Your task to perform on an android device: open a new tab in the chrome app Image 0: 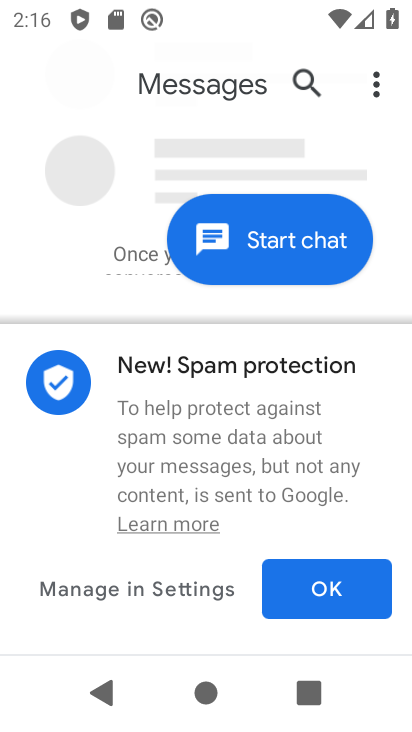
Step 0: press home button
Your task to perform on an android device: open a new tab in the chrome app Image 1: 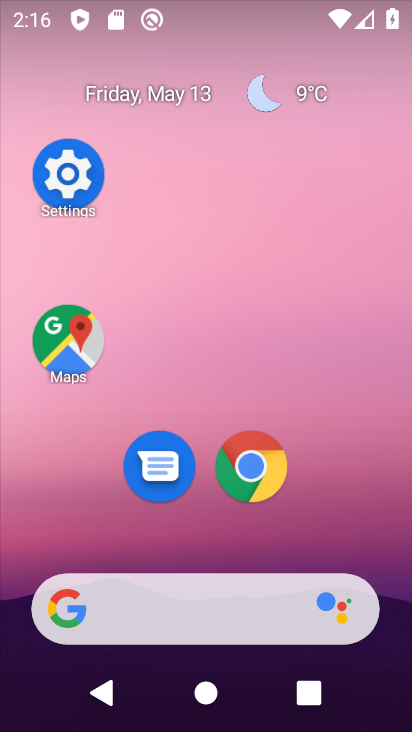
Step 1: click (273, 460)
Your task to perform on an android device: open a new tab in the chrome app Image 2: 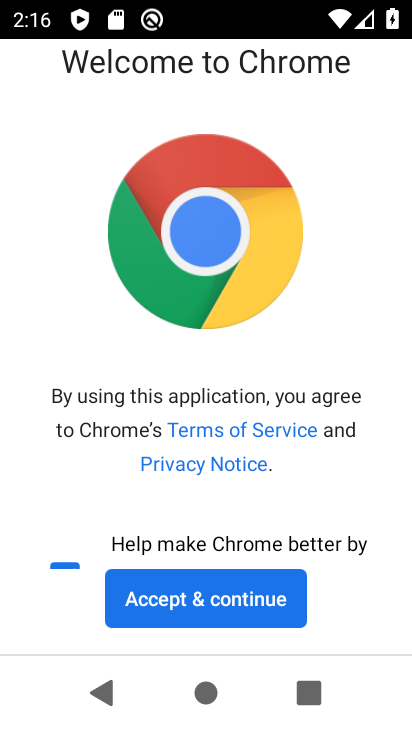
Step 2: click (238, 577)
Your task to perform on an android device: open a new tab in the chrome app Image 3: 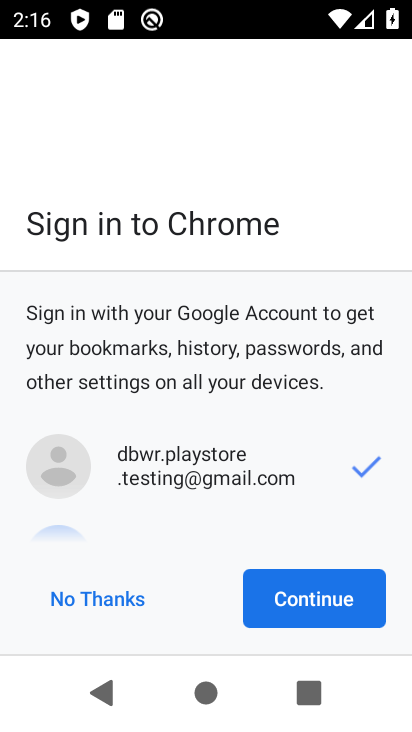
Step 3: click (285, 597)
Your task to perform on an android device: open a new tab in the chrome app Image 4: 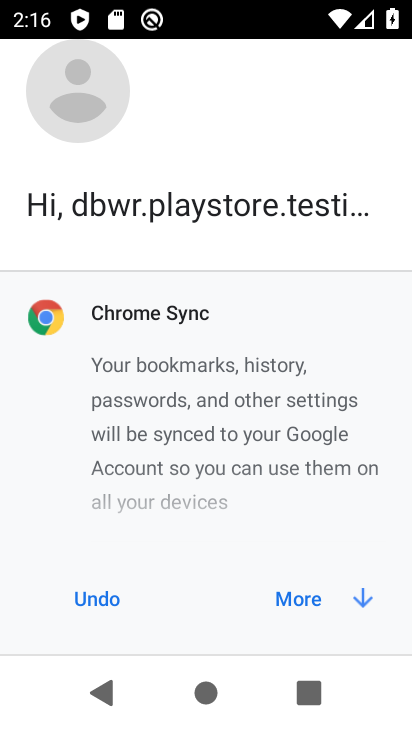
Step 4: click (311, 613)
Your task to perform on an android device: open a new tab in the chrome app Image 5: 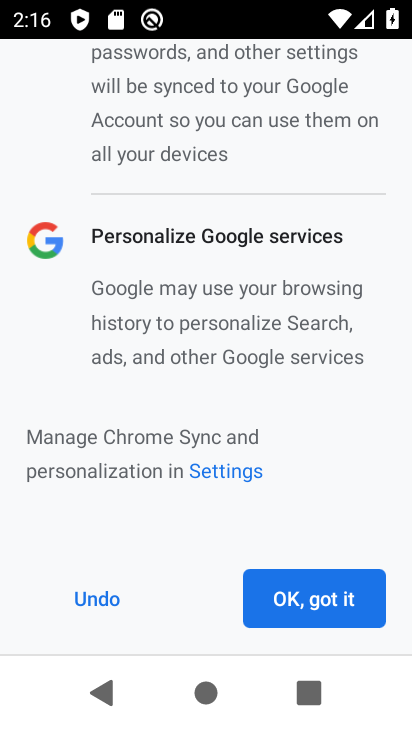
Step 5: click (297, 588)
Your task to perform on an android device: open a new tab in the chrome app Image 6: 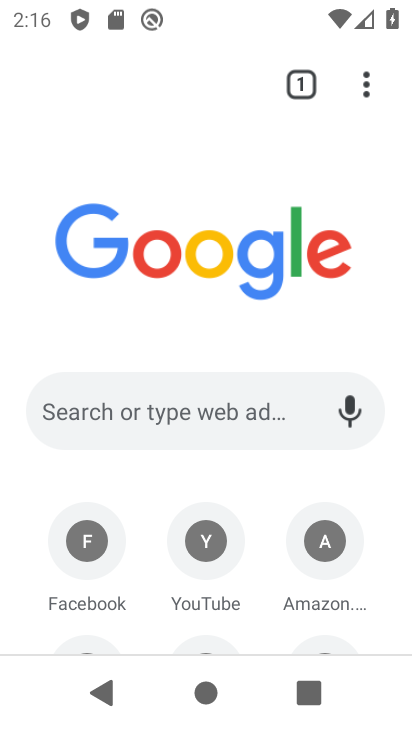
Step 6: click (313, 93)
Your task to perform on an android device: open a new tab in the chrome app Image 7: 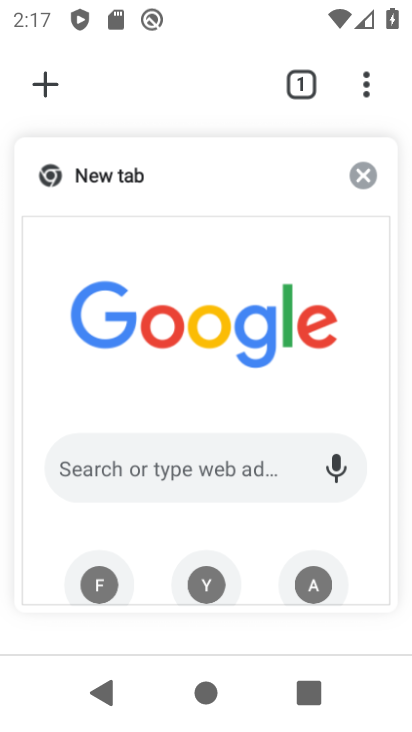
Step 7: click (61, 91)
Your task to perform on an android device: open a new tab in the chrome app Image 8: 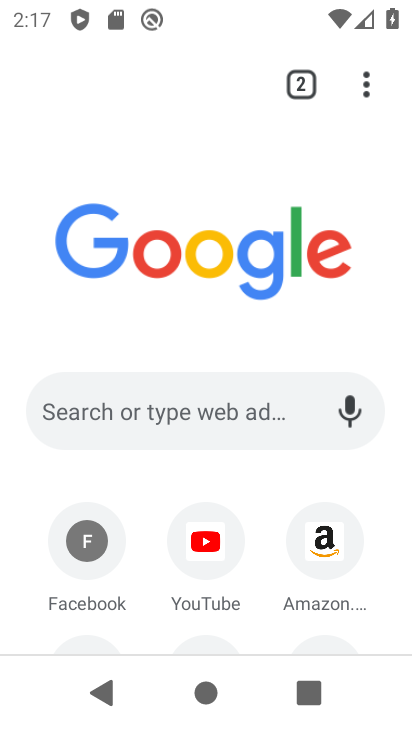
Step 8: task complete